Your task to perform on an android device: Turn off the flashlight Image 0: 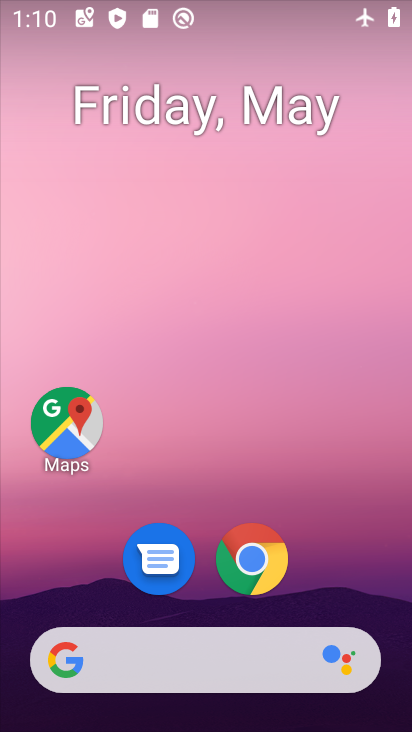
Step 0: drag from (311, 539) to (314, 122)
Your task to perform on an android device: Turn off the flashlight Image 1: 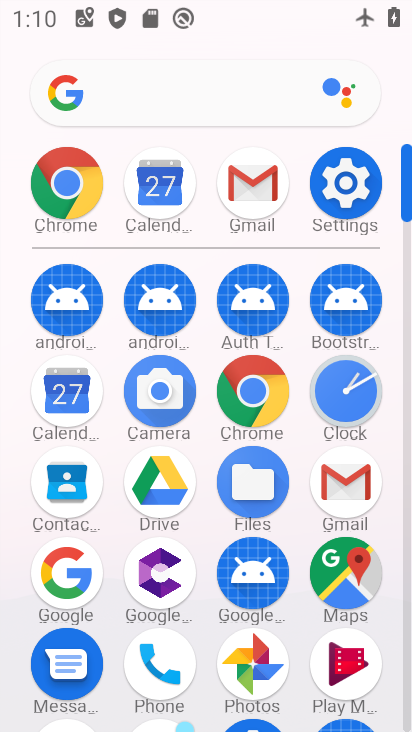
Step 1: click (321, 196)
Your task to perform on an android device: Turn off the flashlight Image 2: 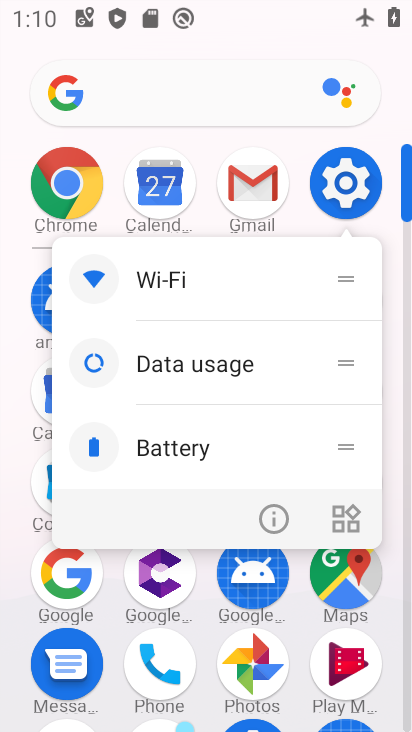
Step 2: click (362, 184)
Your task to perform on an android device: Turn off the flashlight Image 3: 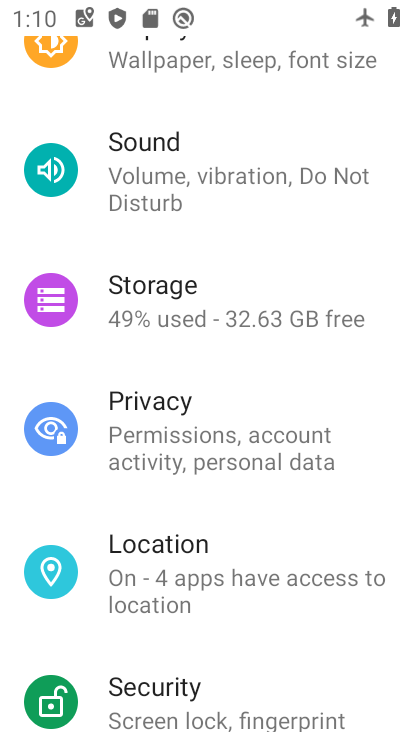
Step 3: drag from (151, 211) to (52, 449)
Your task to perform on an android device: Turn off the flashlight Image 4: 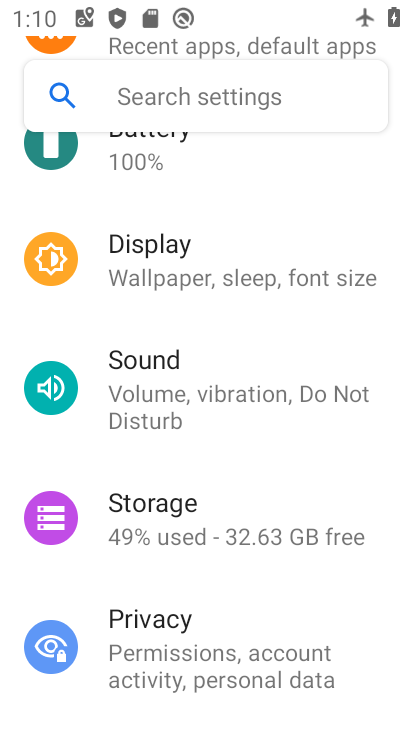
Step 4: drag from (94, 288) to (68, 523)
Your task to perform on an android device: Turn off the flashlight Image 5: 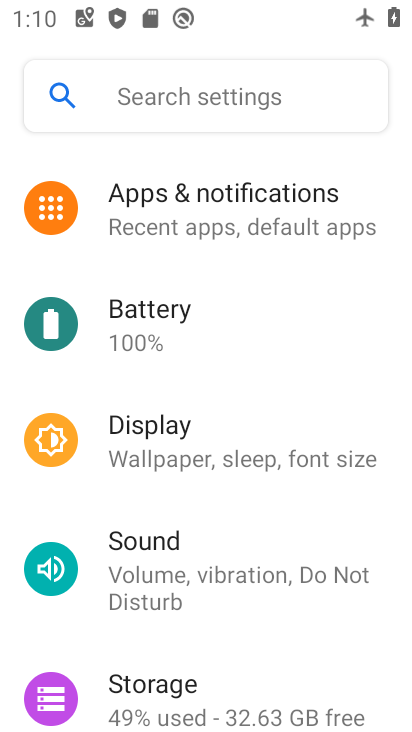
Step 5: drag from (216, 311) to (224, 120)
Your task to perform on an android device: Turn off the flashlight Image 6: 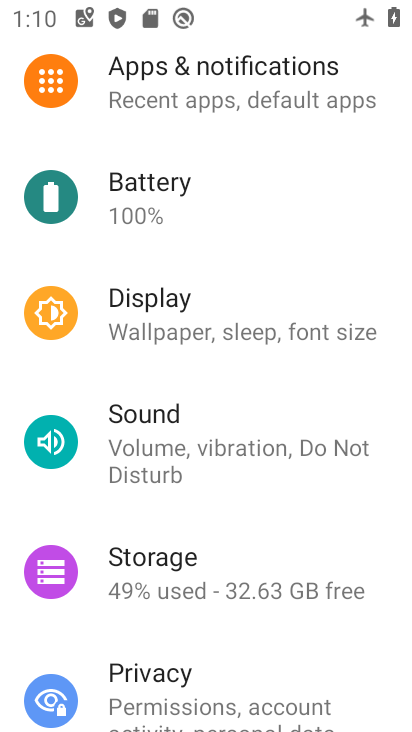
Step 6: drag from (227, 542) to (170, 132)
Your task to perform on an android device: Turn off the flashlight Image 7: 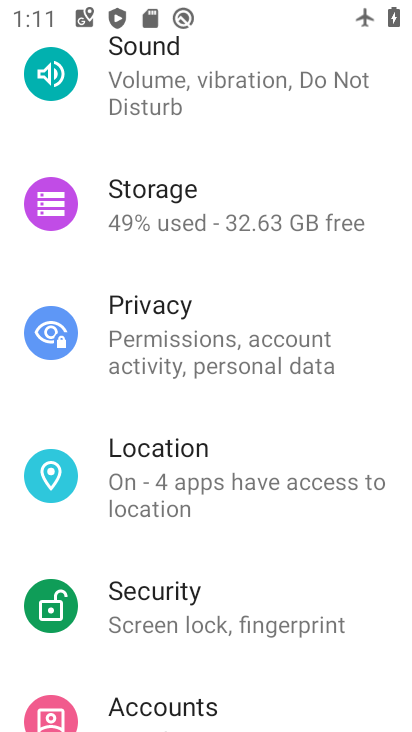
Step 7: drag from (211, 501) to (203, 197)
Your task to perform on an android device: Turn off the flashlight Image 8: 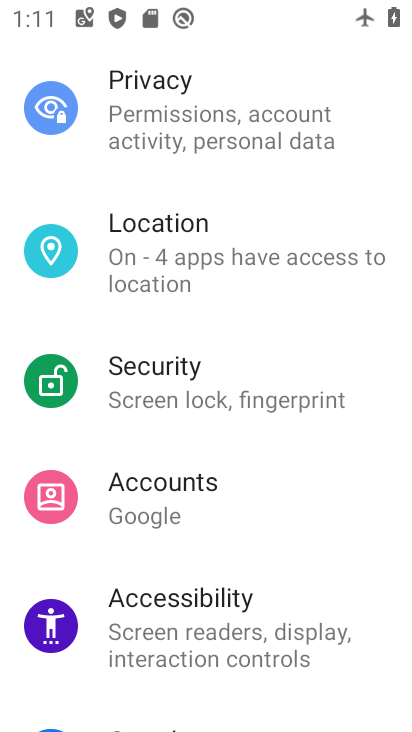
Step 8: drag from (303, 624) to (226, 725)
Your task to perform on an android device: Turn off the flashlight Image 9: 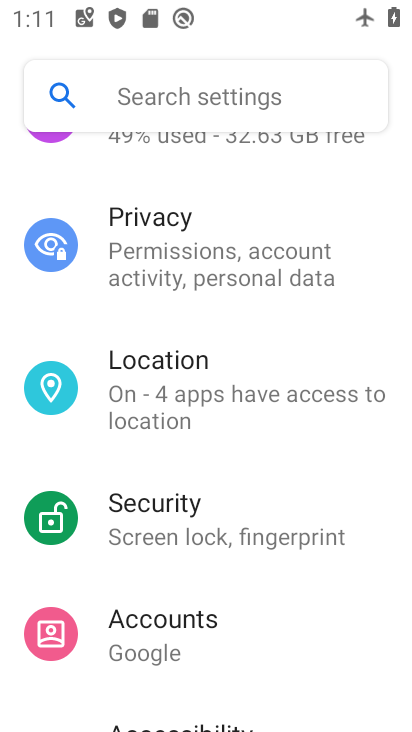
Step 9: drag from (248, 280) to (221, 728)
Your task to perform on an android device: Turn off the flashlight Image 10: 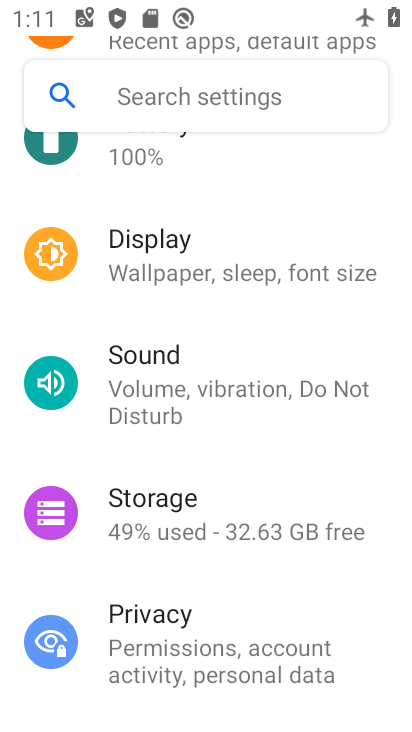
Step 10: click (181, 275)
Your task to perform on an android device: Turn off the flashlight Image 11: 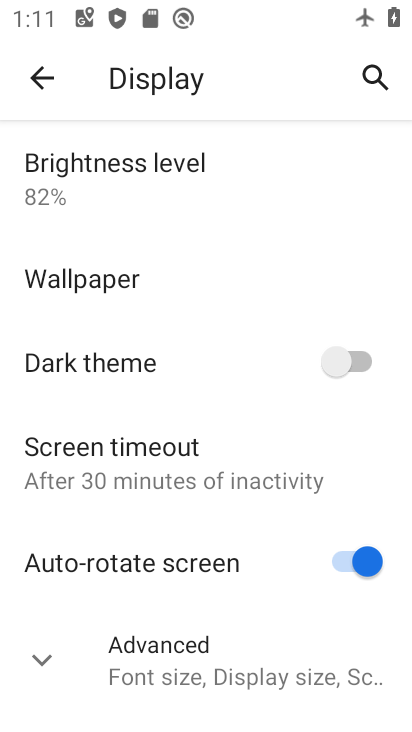
Step 11: task complete